Your task to perform on an android device: set the stopwatch Image 0: 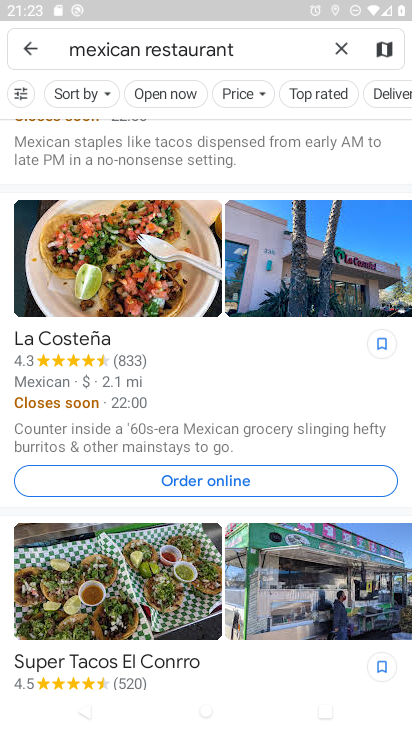
Step 0: press home button
Your task to perform on an android device: set the stopwatch Image 1: 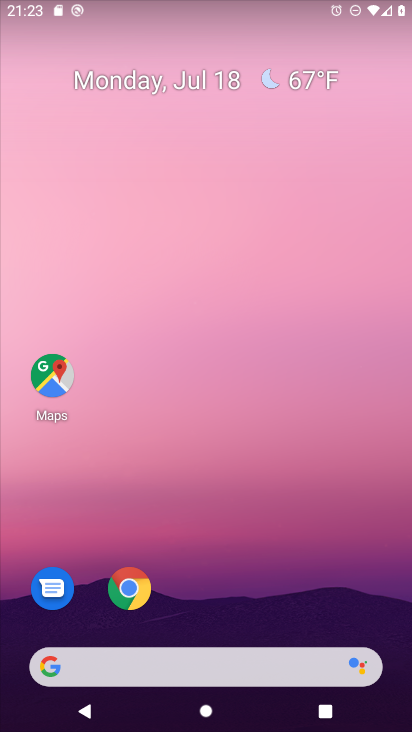
Step 1: drag from (388, 629) to (306, 151)
Your task to perform on an android device: set the stopwatch Image 2: 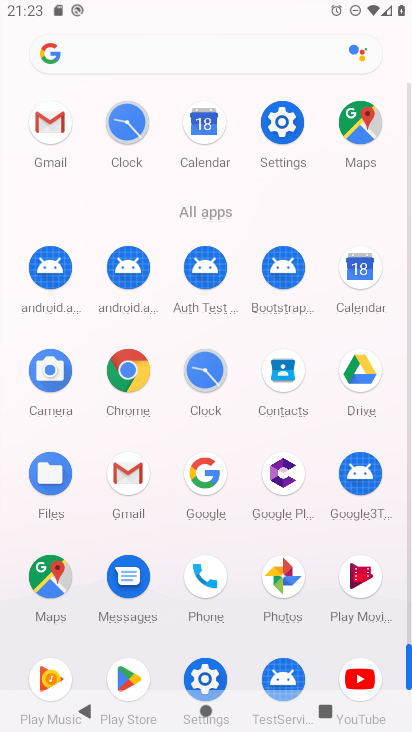
Step 2: click (199, 368)
Your task to perform on an android device: set the stopwatch Image 3: 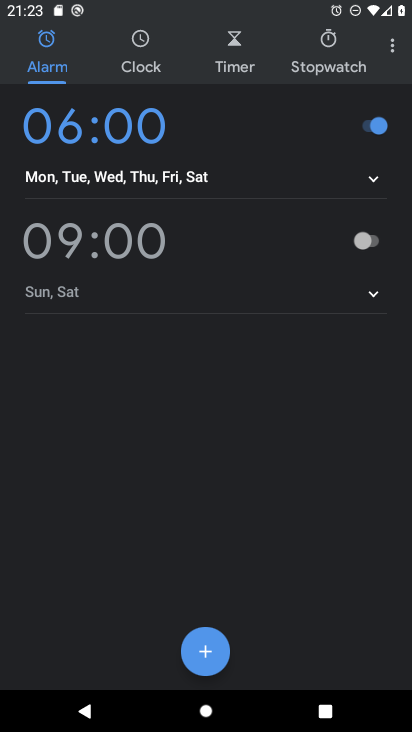
Step 3: click (323, 52)
Your task to perform on an android device: set the stopwatch Image 4: 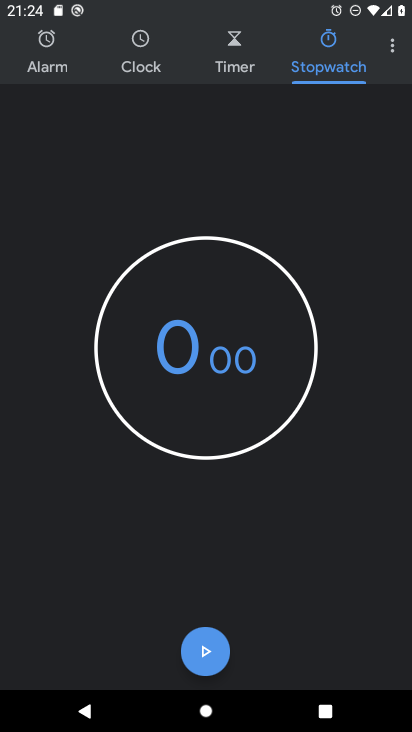
Step 4: task complete